Your task to perform on an android device: open app "HBO Max: Stream TV & Movies" (install if not already installed) and go to login screen Image 0: 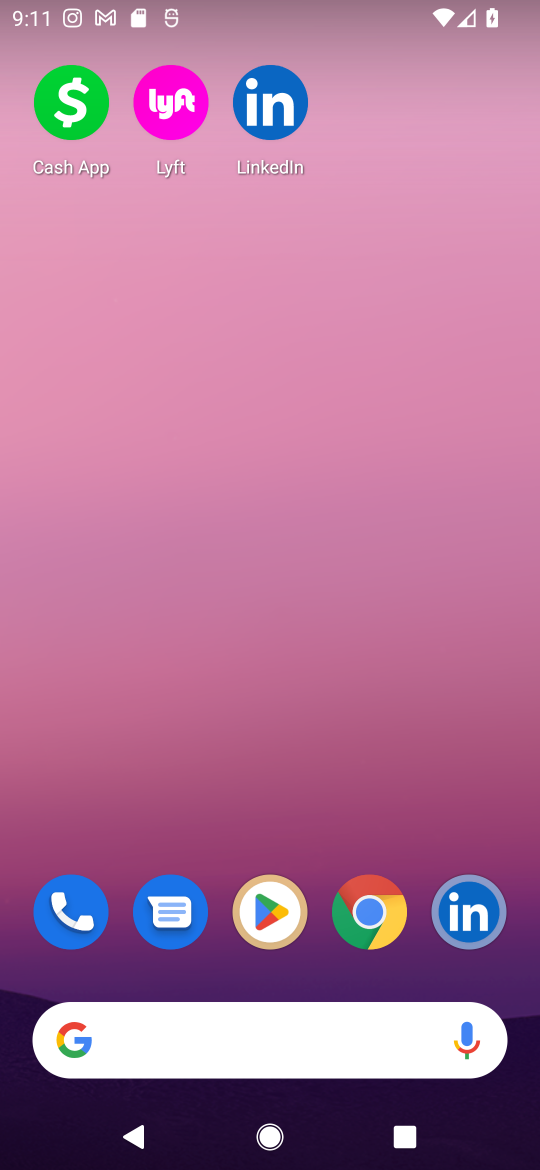
Step 0: click (251, 920)
Your task to perform on an android device: open app "HBO Max: Stream TV & Movies" (install if not already installed) and go to login screen Image 1: 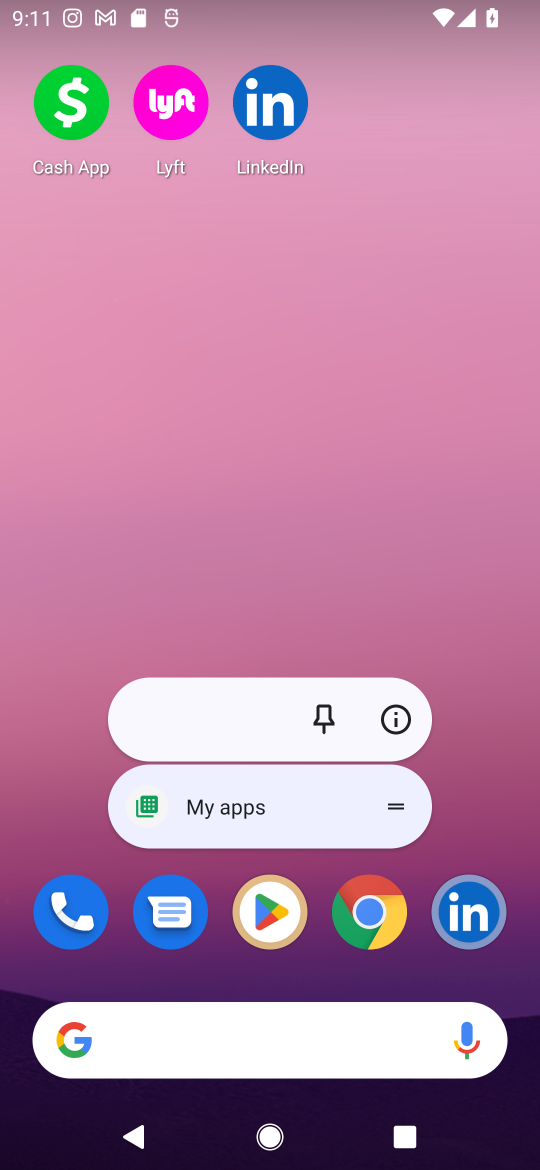
Step 1: click (277, 907)
Your task to perform on an android device: open app "HBO Max: Stream TV & Movies" (install if not already installed) and go to login screen Image 2: 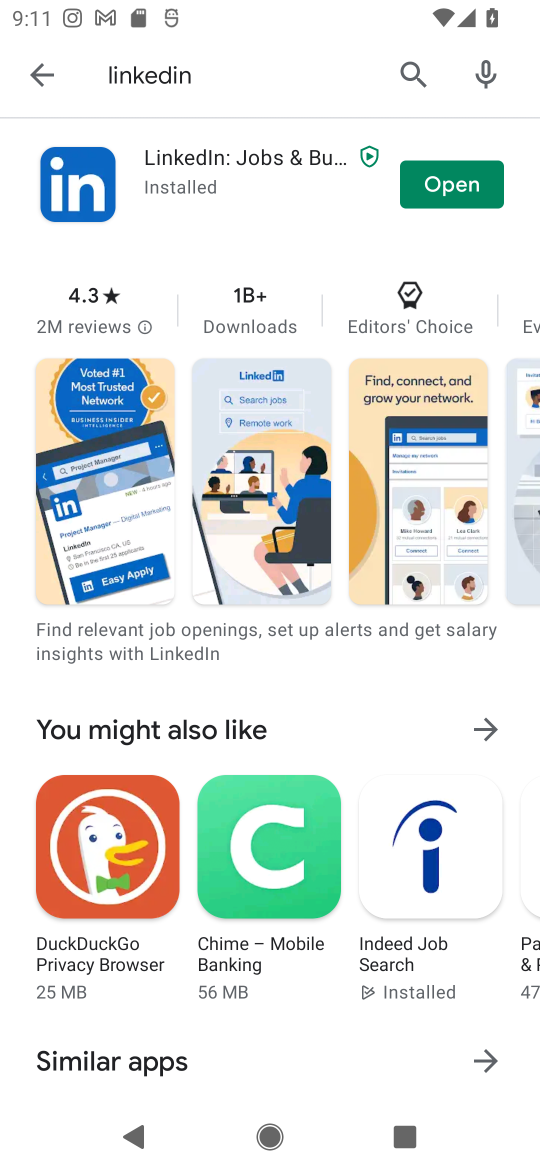
Step 2: click (408, 66)
Your task to perform on an android device: open app "HBO Max: Stream TV & Movies" (install if not already installed) and go to login screen Image 3: 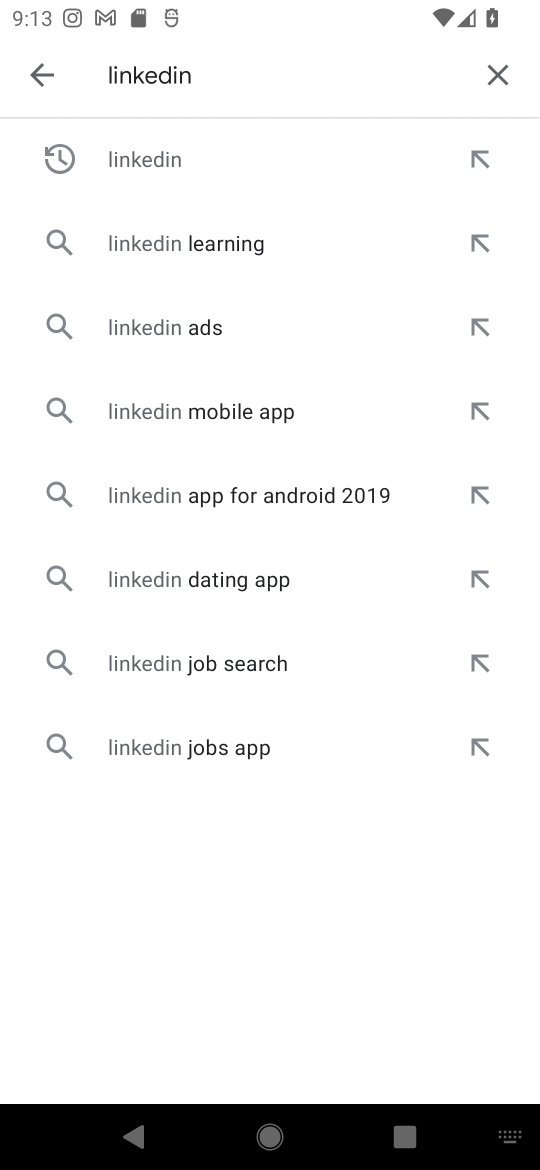
Step 3: click (131, 164)
Your task to perform on an android device: open app "HBO Max: Stream TV & Movies" (install if not already installed) and go to login screen Image 4: 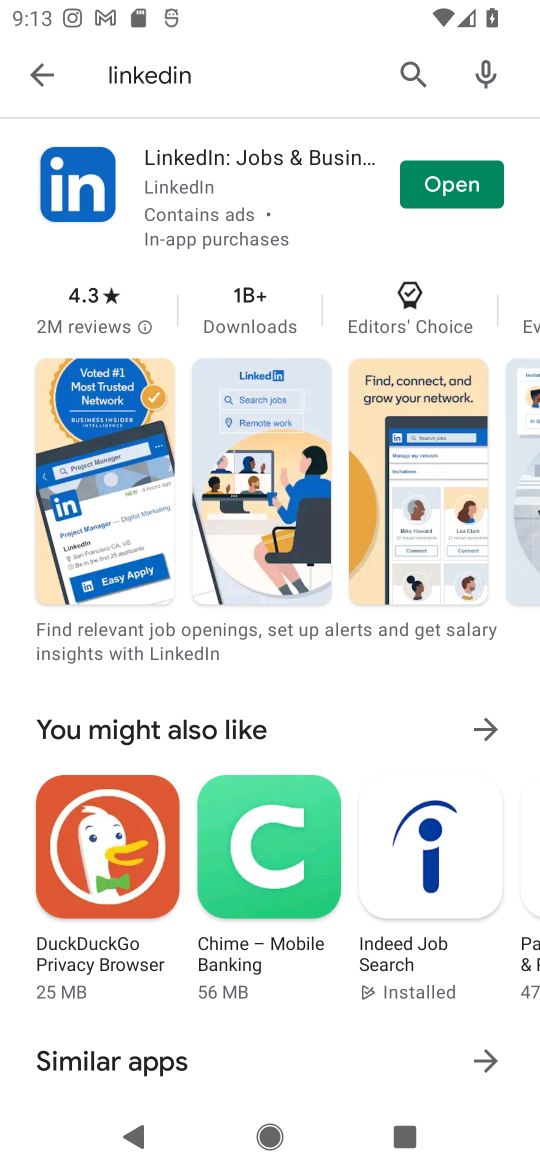
Step 4: click (415, 65)
Your task to perform on an android device: open app "HBO Max: Stream TV & Movies" (install if not already installed) and go to login screen Image 5: 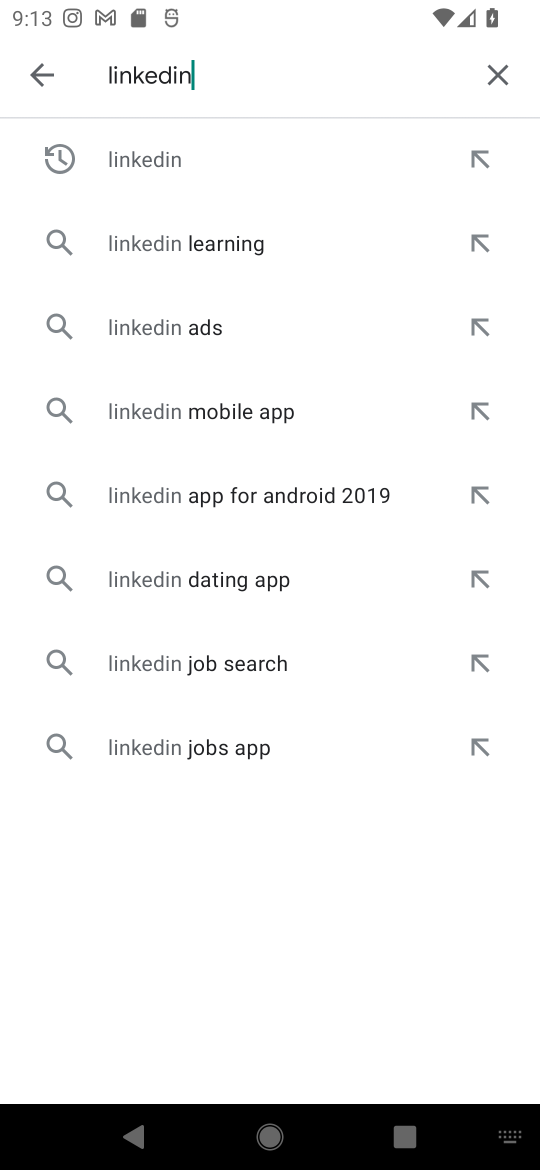
Step 5: click (500, 65)
Your task to perform on an android device: open app "HBO Max: Stream TV & Movies" (install if not already installed) and go to login screen Image 6: 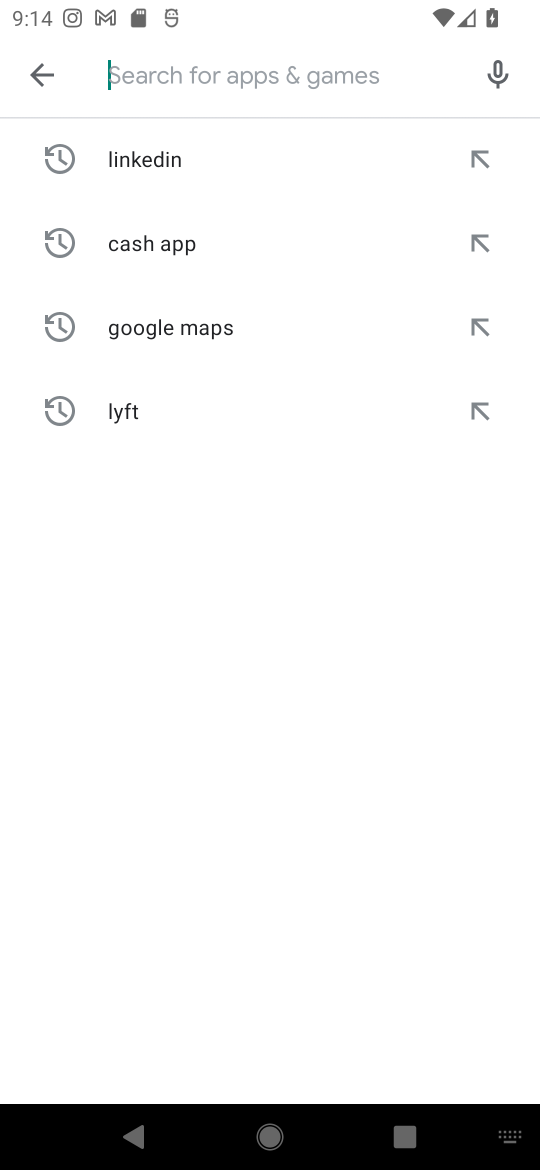
Step 6: type "HBO Max: Stream TV & Movies"
Your task to perform on an android device: open app "HBO Max: Stream TV & Movies" (install if not already installed) and go to login screen Image 7: 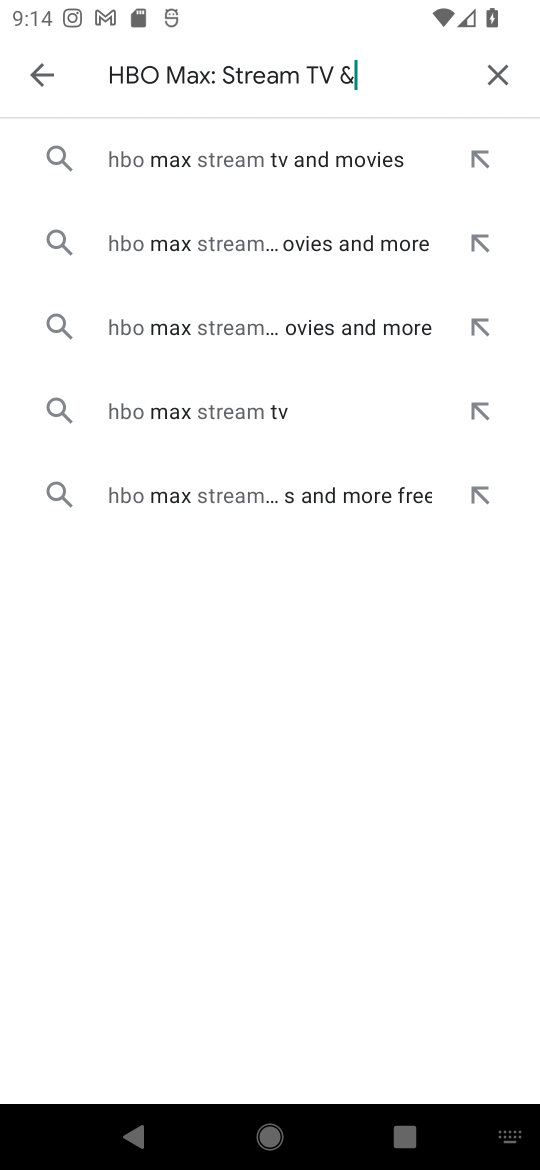
Step 7: type ""
Your task to perform on an android device: open app "HBO Max: Stream TV & Movies" (install if not already installed) and go to login screen Image 8: 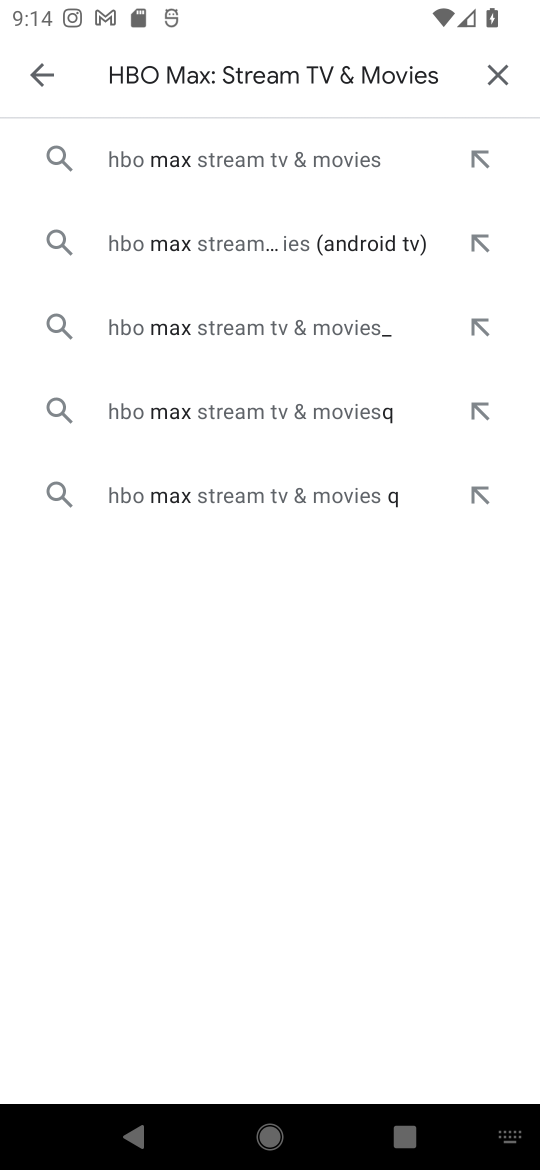
Step 8: click (308, 157)
Your task to perform on an android device: open app "HBO Max: Stream TV & Movies" (install if not already installed) and go to login screen Image 9: 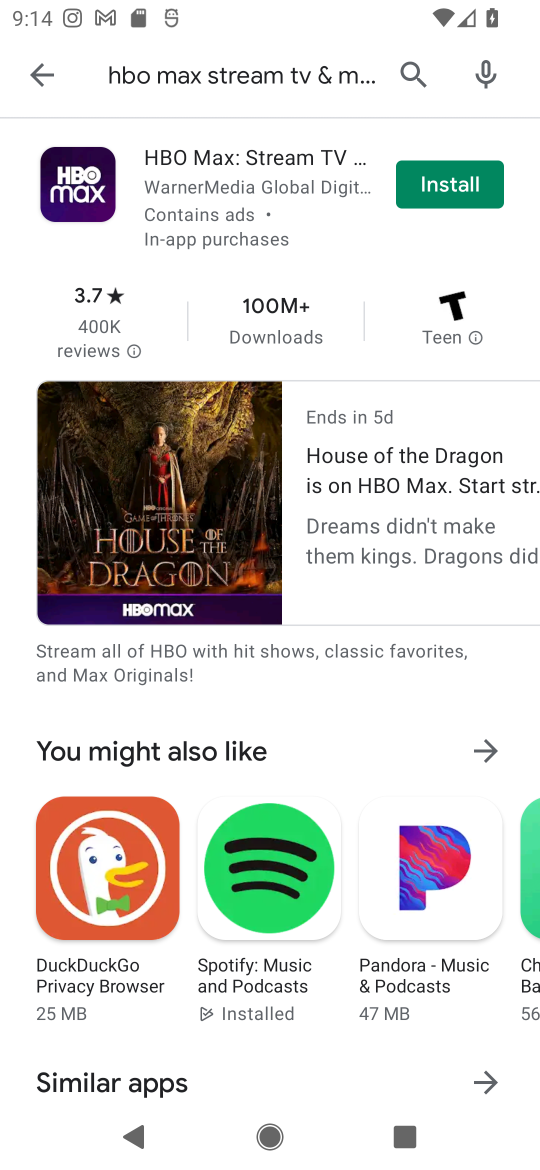
Step 9: click (470, 174)
Your task to perform on an android device: open app "HBO Max: Stream TV & Movies" (install if not already installed) and go to login screen Image 10: 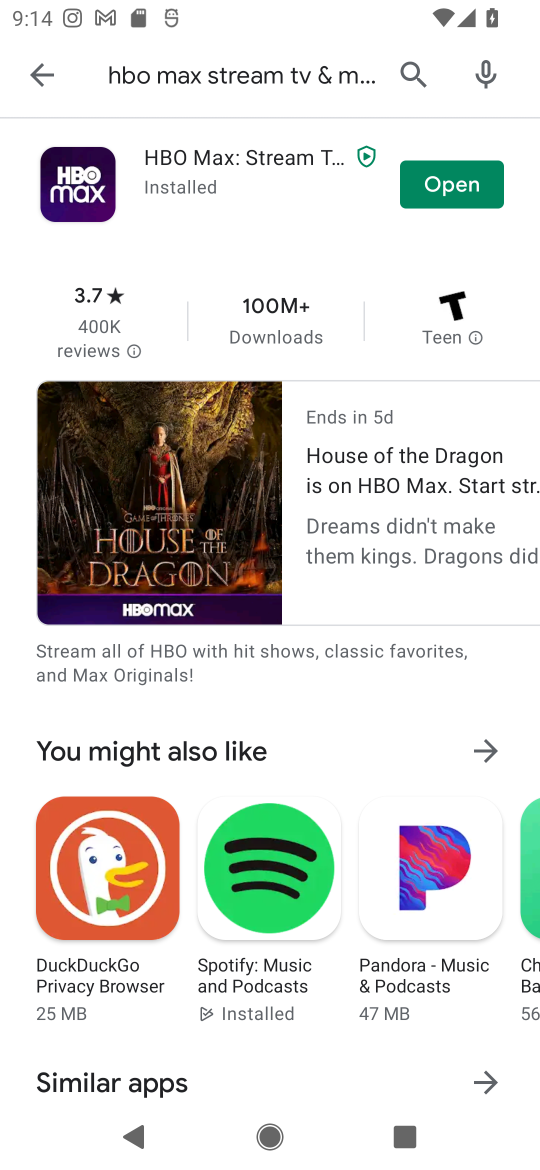
Step 10: click (460, 176)
Your task to perform on an android device: open app "HBO Max: Stream TV & Movies" (install if not already installed) and go to login screen Image 11: 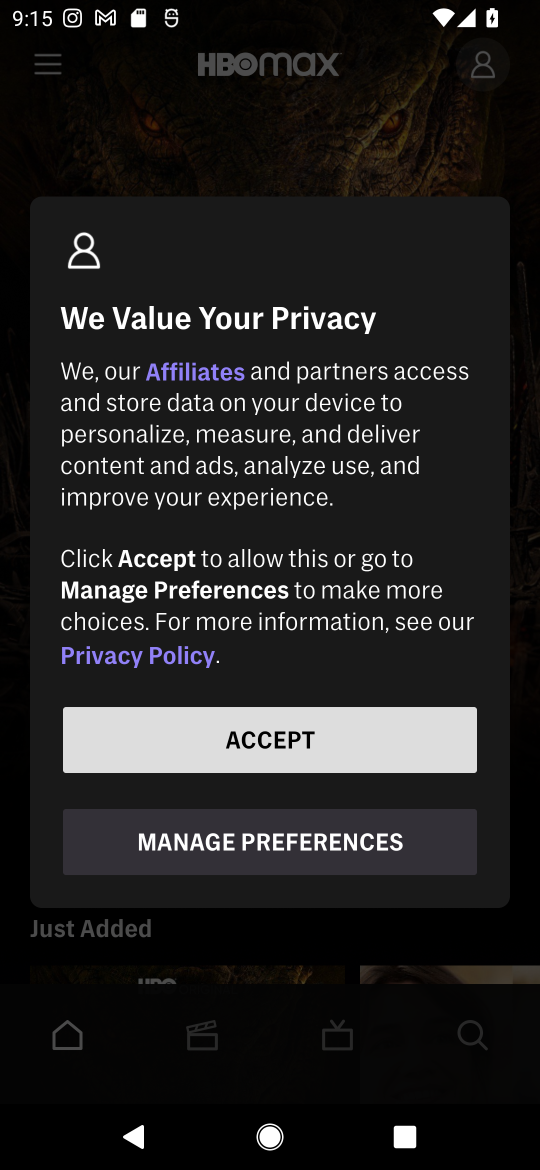
Step 11: click (280, 742)
Your task to perform on an android device: open app "HBO Max: Stream TV & Movies" (install if not already installed) and go to login screen Image 12: 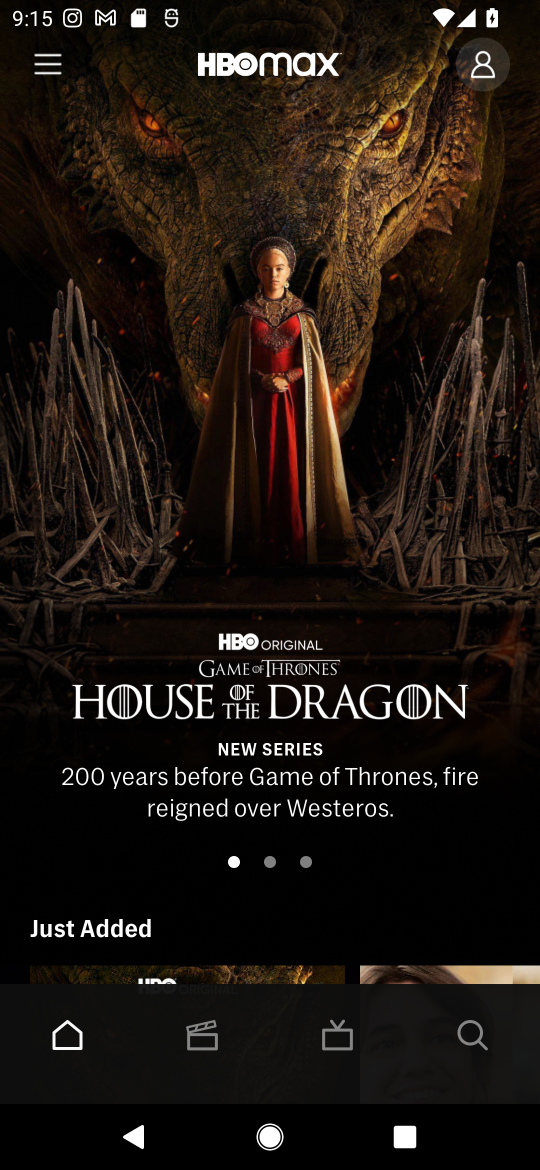
Step 12: click (479, 68)
Your task to perform on an android device: open app "HBO Max: Stream TV & Movies" (install if not already installed) and go to login screen Image 13: 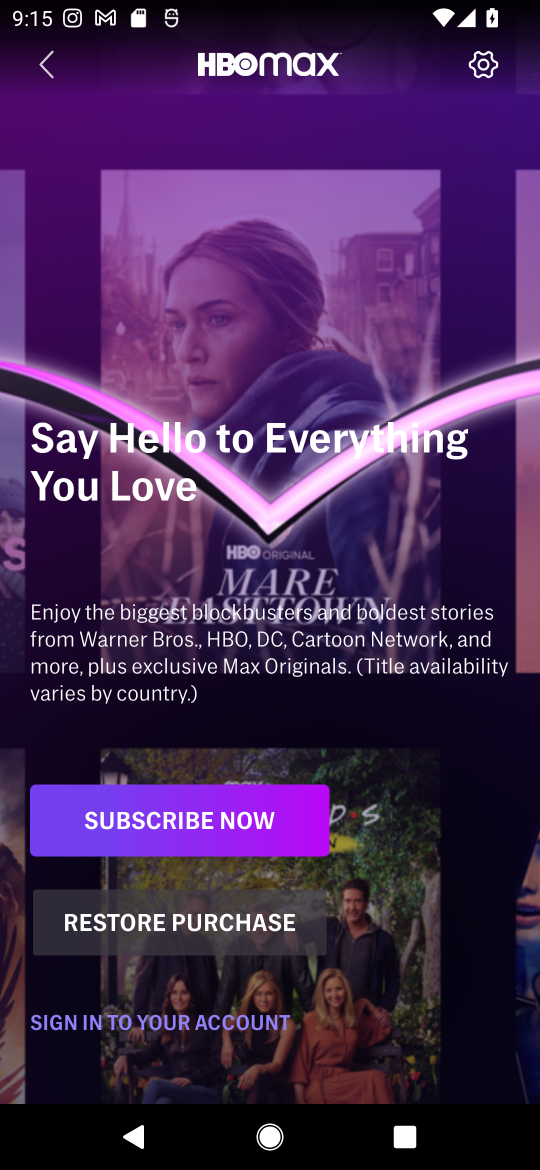
Step 13: task complete